Your task to perform on an android device: make emails show in primary in the gmail app Image 0: 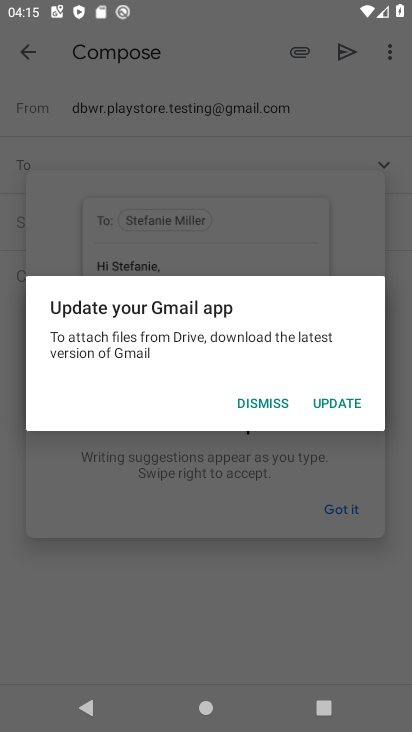
Step 0: press home button
Your task to perform on an android device: make emails show in primary in the gmail app Image 1: 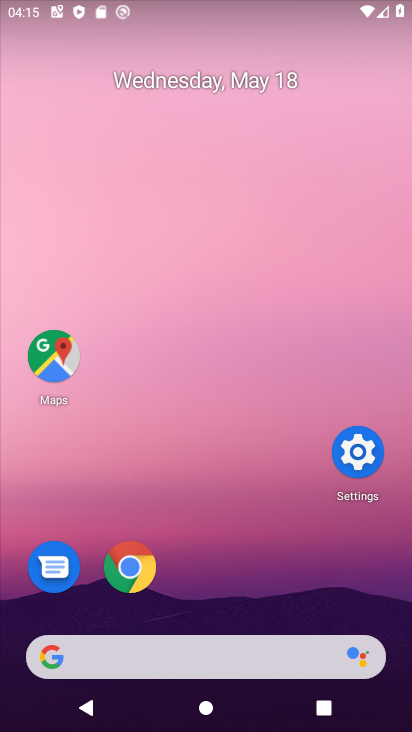
Step 1: drag from (233, 580) to (280, 139)
Your task to perform on an android device: make emails show in primary in the gmail app Image 2: 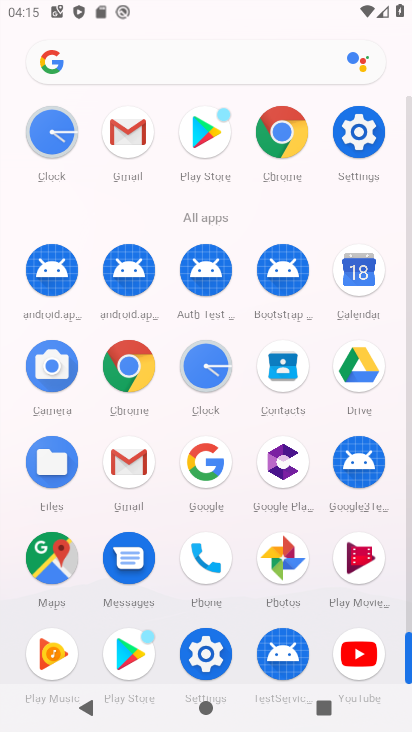
Step 2: click (133, 135)
Your task to perform on an android device: make emails show in primary in the gmail app Image 3: 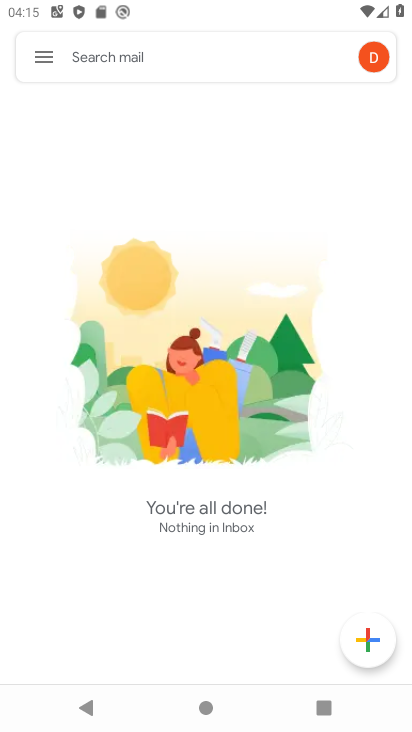
Step 3: task complete